Your task to perform on an android device: Open the stopwatch Image 0: 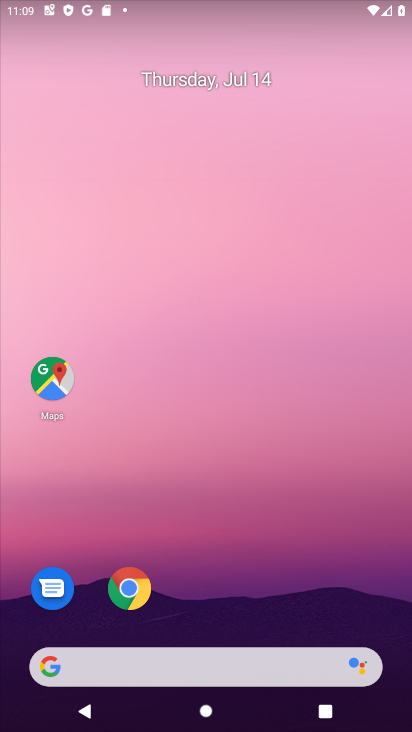
Step 0: drag from (195, 682) to (329, 69)
Your task to perform on an android device: Open the stopwatch Image 1: 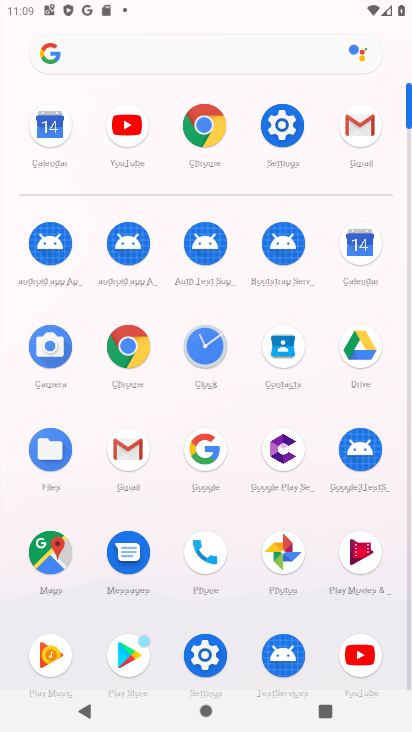
Step 1: click (203, 351)
Your task to perform on an android device: Open the stopwatch Image 2: 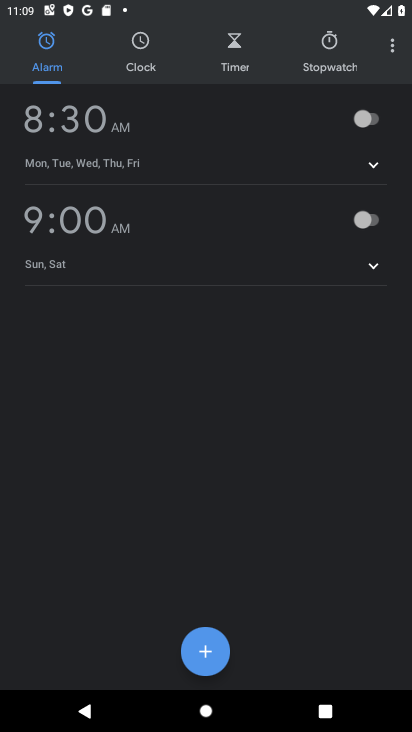
Step 2: click (341, 55)
Your task to perform on an android device: Open the stopwatch Image 3: 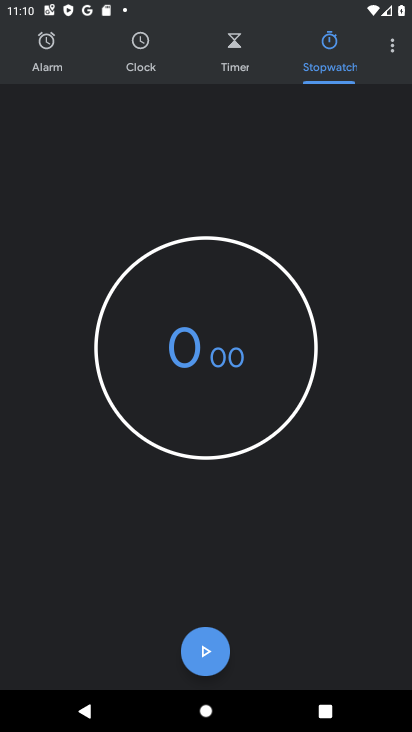
Step 3: task complete